Your task to perform on an android device: Open the map Image 0: 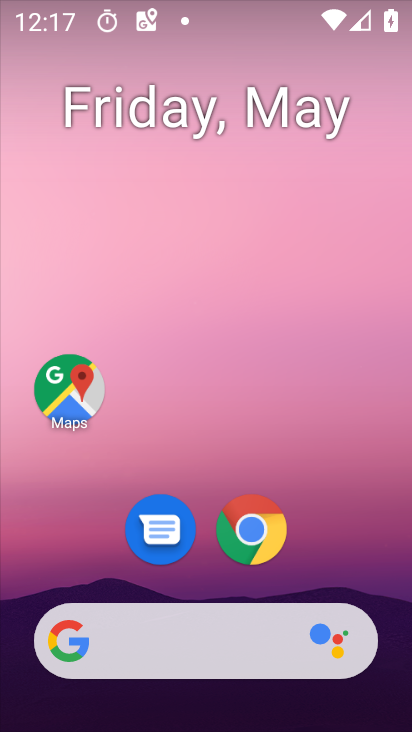
Step 0: drag from (240, 579) to (233, 179)
Your task to perform on an android device: Open the map Image 1: 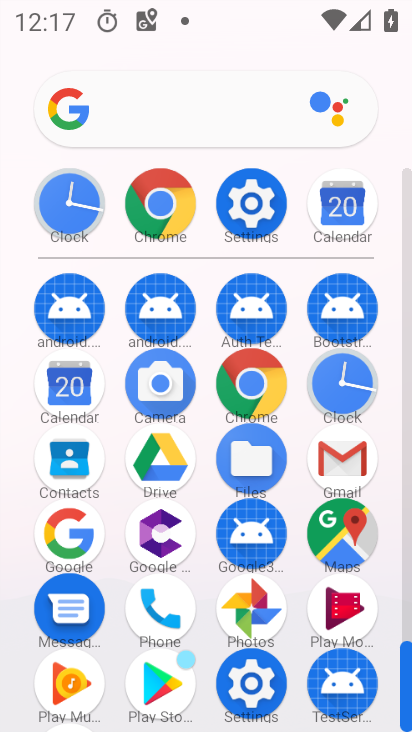
Step 1: click (345, 542)
Your task to perform on an android device: Open the map Image 2: 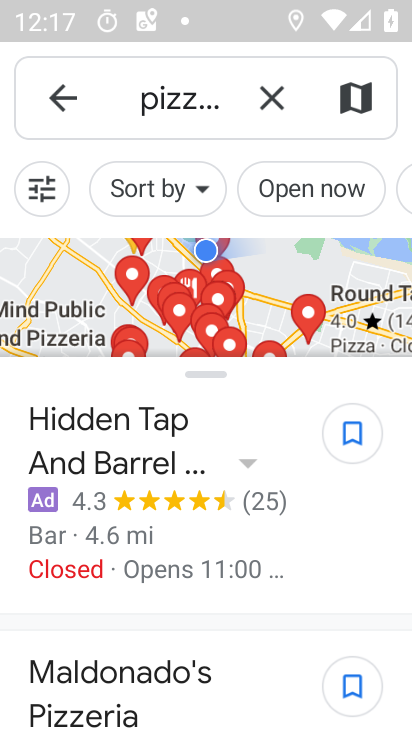
Step 2: task complete